Your task to perform on an android device: toggle wifi Image 0: 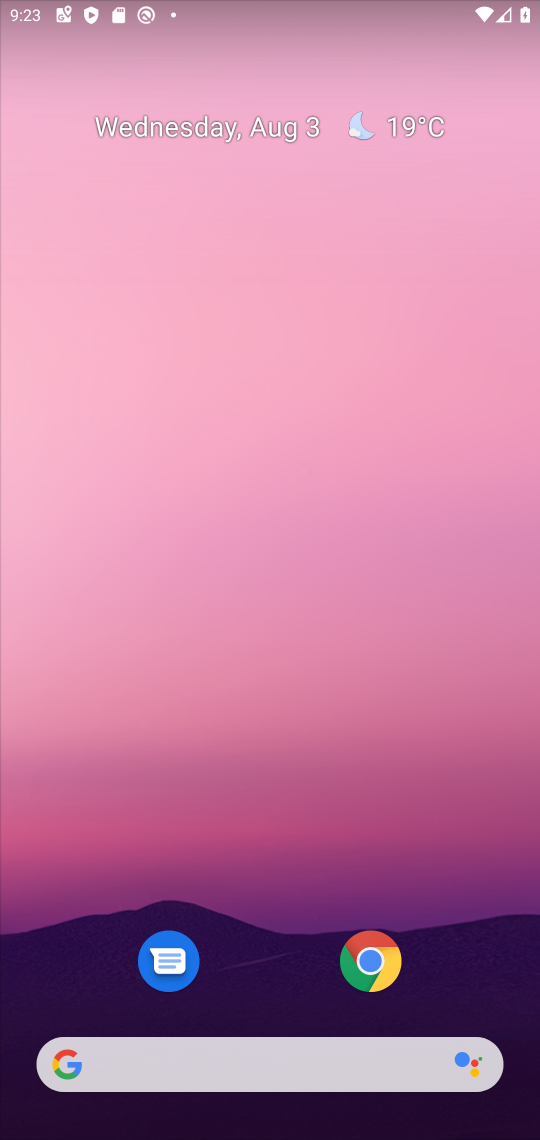
Step 0: drag from (287, 1006) to (215, 107)
Your task to perform on an android device: toggle wifi Image 1: 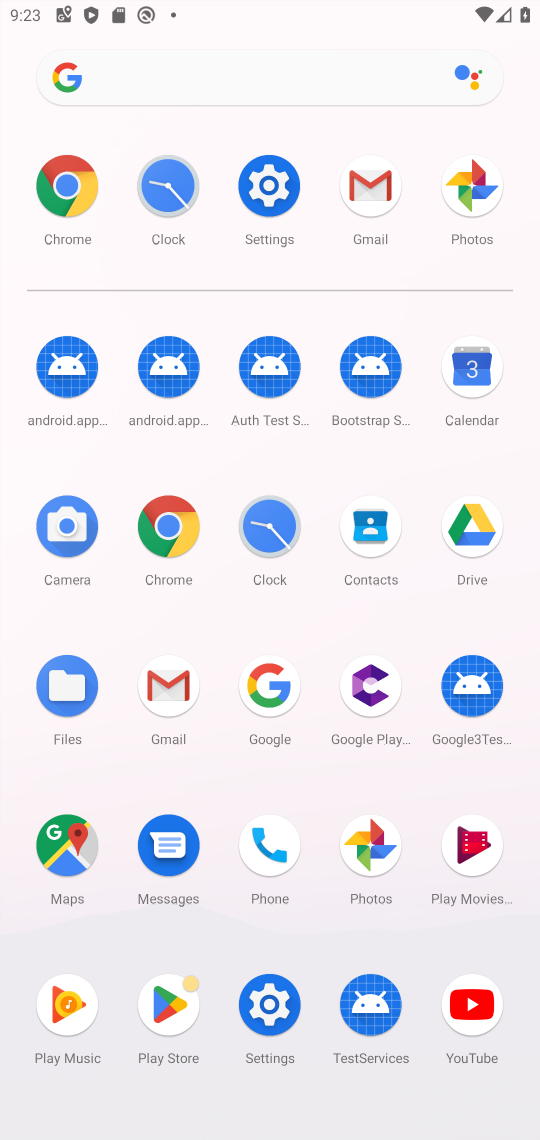
Step 1: click (282, 196)
Your task to perform on an android device: toggle wifi Image 2: 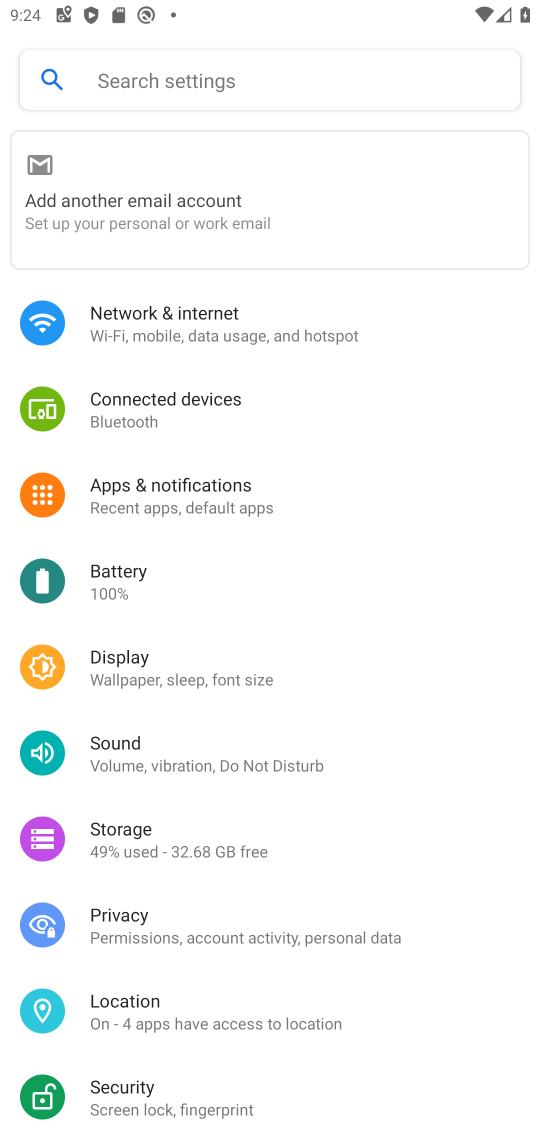
Step 2: click (171, 308)
Your task to perform on an android device: toggle wifi Image 3: 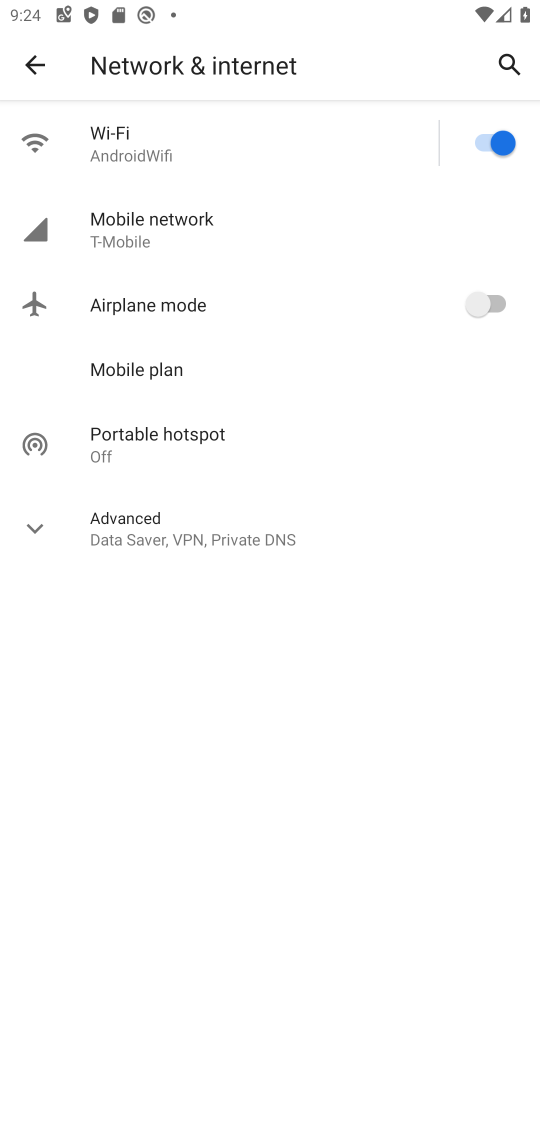
Step 3: click (198, 127)
Your task to perform on an android device: toggle wifi Image 4: 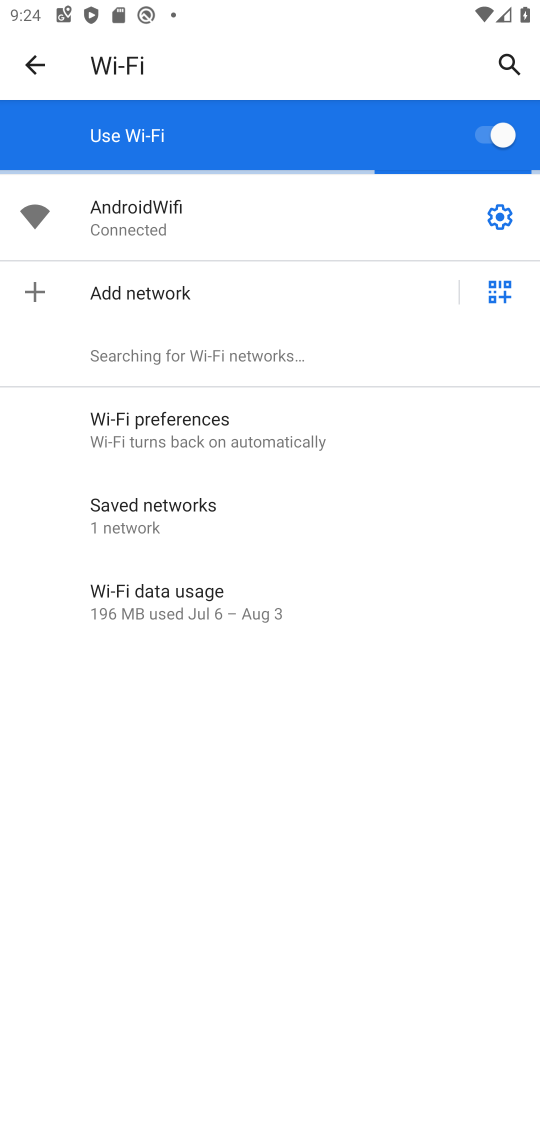
Step 4: click (496, 135)
Your task to perform on an android device: toggle wifi Image 5: 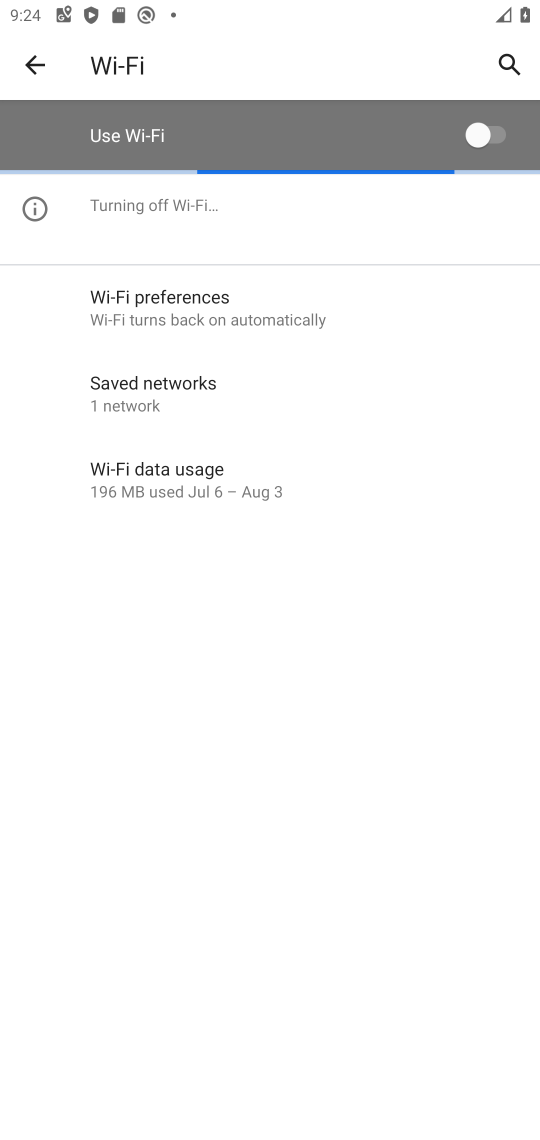
Step 5: task complete